Your task to perform on an android device: Toggle the flashlight Image 0: 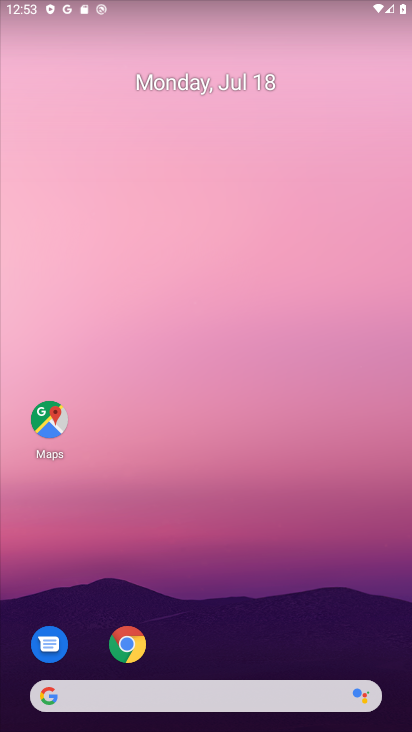
Step 0: drag from (354, 21) to (304, 511)
Your task to perform on an android device: Toggle the flashlight Image 1: 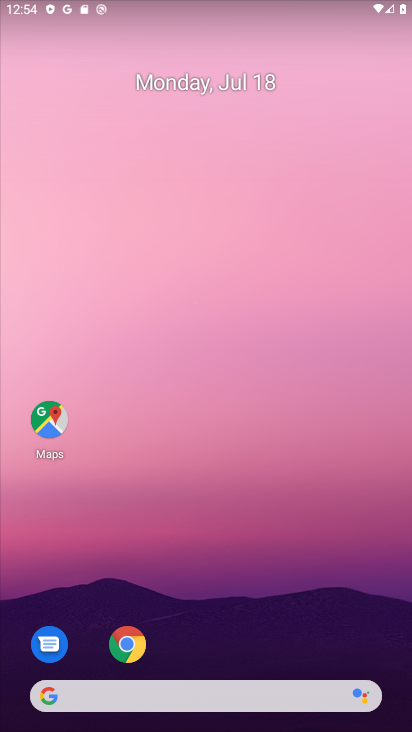
Step 1: task complete